Your task to perform on an android device: Open Wikipedia Image 0: 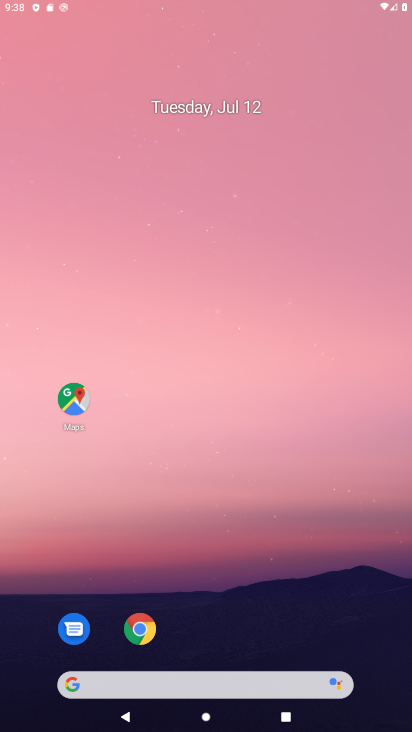
Step 0: click (249, 58)
Your task to perform on an android device: Open Wikipedia Image 1: 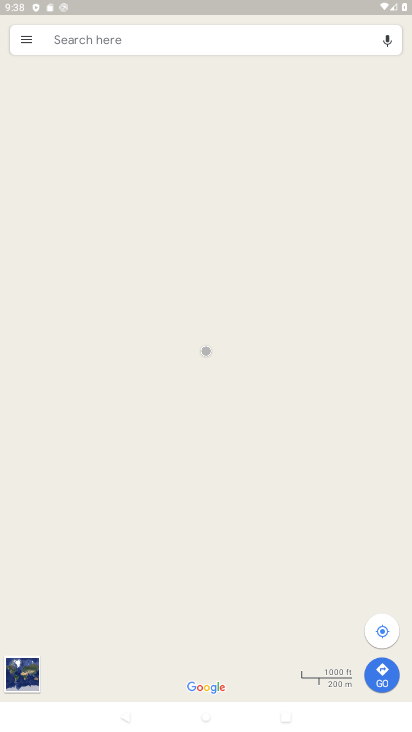
Step 1: press home button
Your task to perform on an android device: Open Wikipedia Image 2: 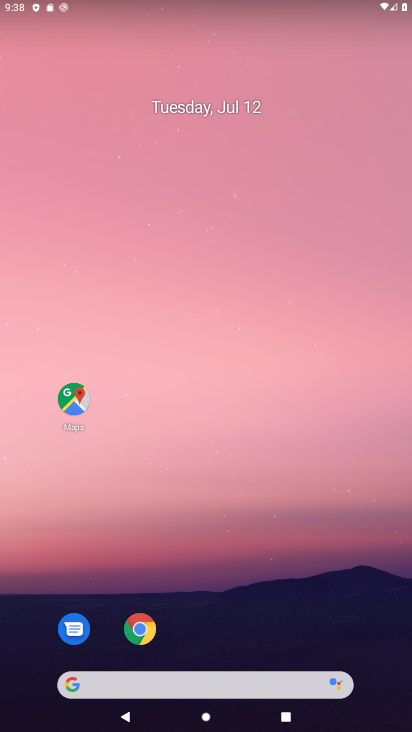
Step 2: drag from (269, 537) to (275, 19)
Your task to perform on an android device: Open Wikipedia Image 3: 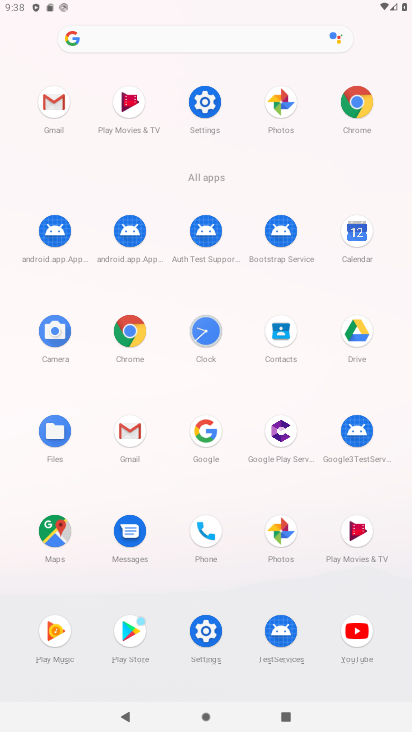
Step 3: click (133, 331)
Your task to perform on an android device: Open Wikipedia Image 4: 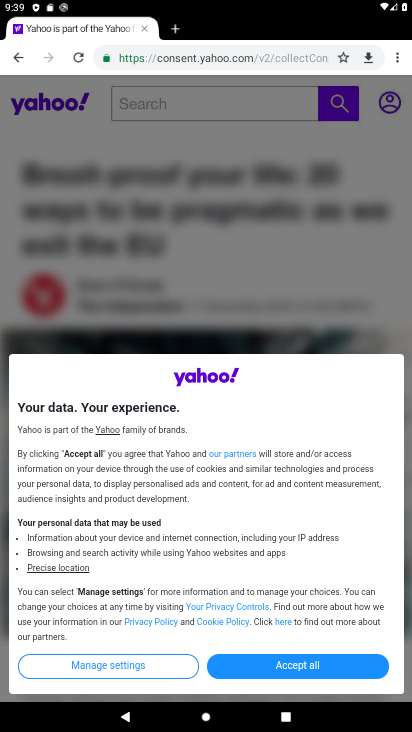
Step 4: click (251, 60)
Your task to perform on an android device: Open Wikipedia Image 5: 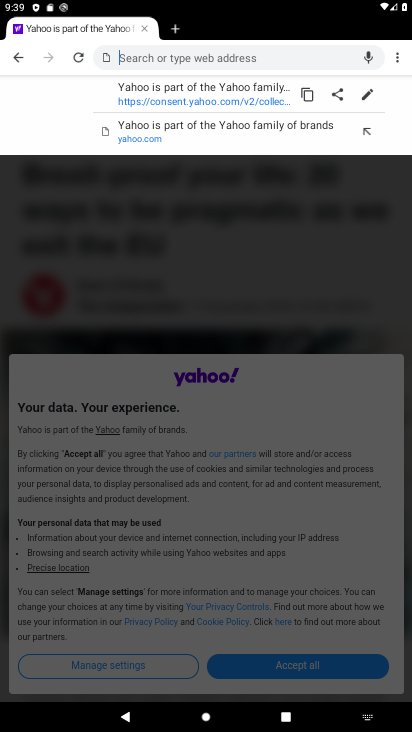
Step 5: type "wikipedia"
Your task to perform on an android device: Open Wikipedia Image 6: 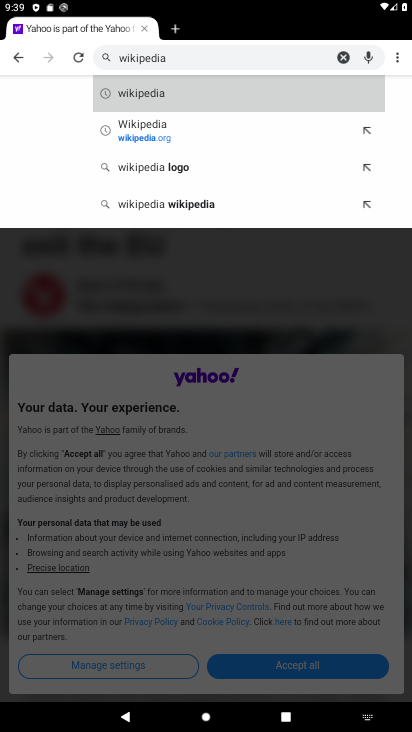
Step 6: click (155, 140)
Your task to perform on an android device: Open Wikipedia Image 7: 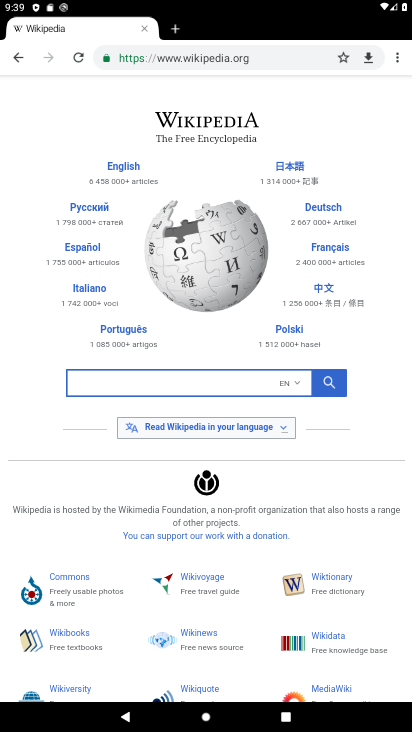
Step 7: task complete